Your task to perform on an android device: Open calendar and show me the fourth week of next month Image 0: 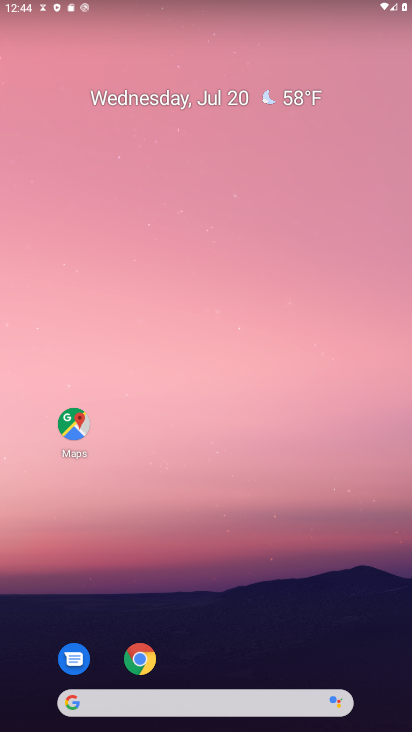
Step 0: press home button
Your task to perform on an android device: Open calendar and show me the fourth week of next month Image 1: 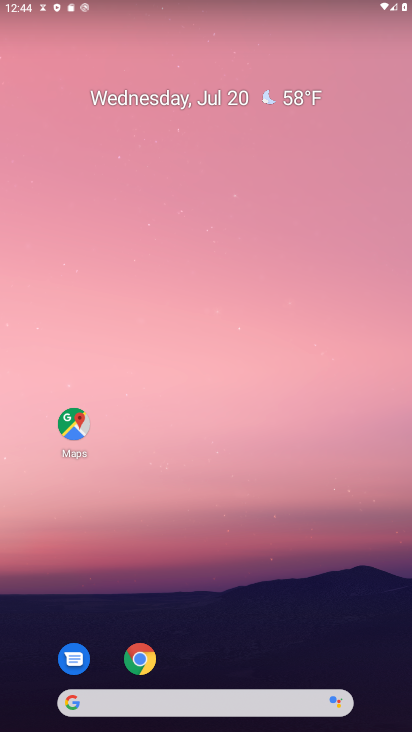
Step 1: drag from (209, 673) to (215, 129)
Your task to perform on an android device: Open calendar and show me the fourth week of next month Image 2: 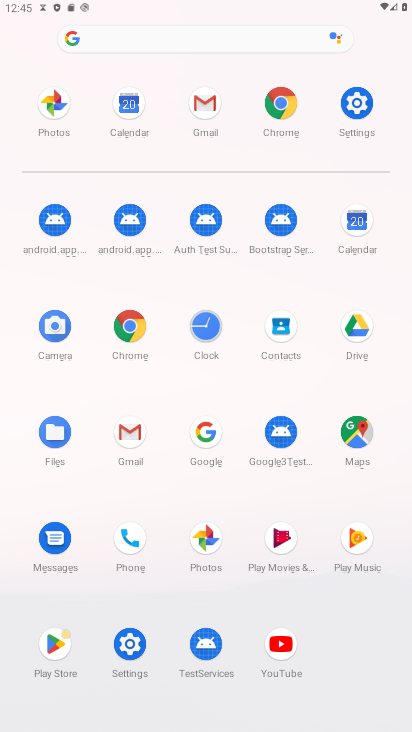
Step 2: click (356, 221)
Your task to perform on an android device: Open calendar and show me the fourth week of next month Image 3: 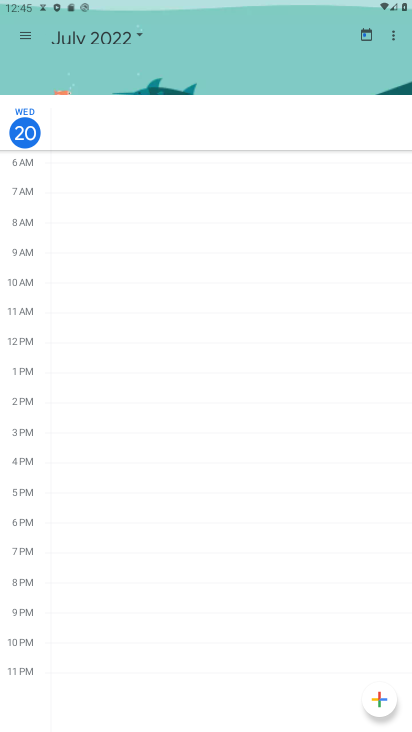
Step 3: click (27, 26)
Your task to perform on an android device: Open calendar and show me the fourth week of next month Image 4: 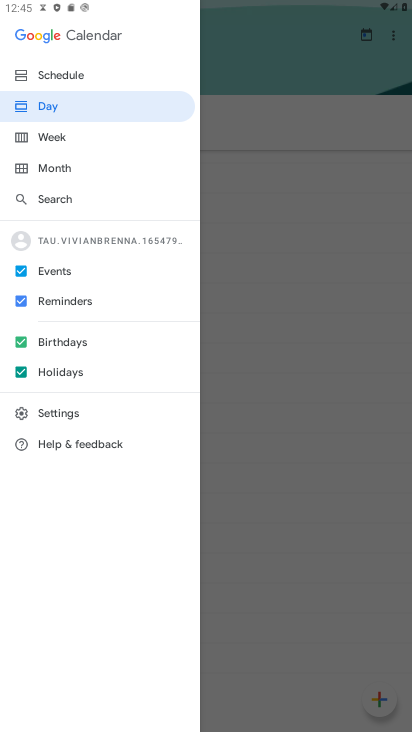
Step 4: click (57, 138)
Your task to perform on an android device: Open calendar and show me the fourth week of next month Image 5: 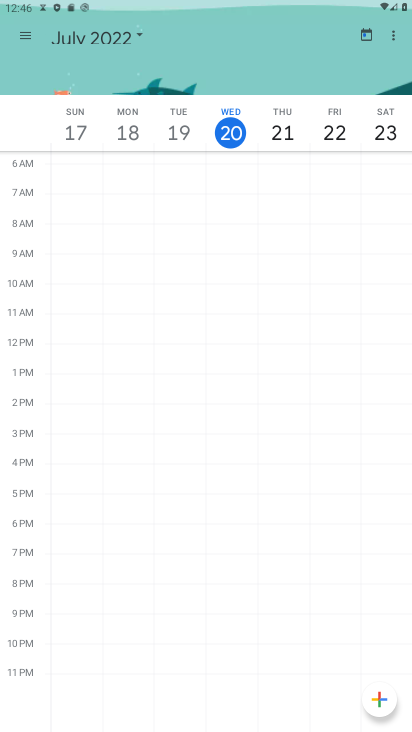
Step 5: drag from (393, 129) to (92, 127)
Your task to perform on an android device: Open calendar and show me the fourth week of next month Image 6: 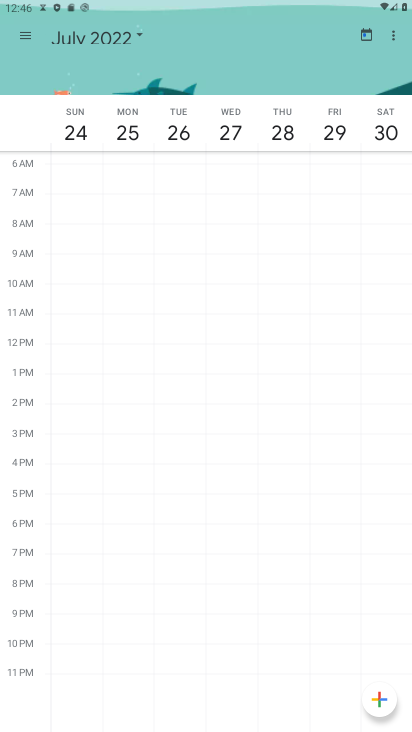
Step 6: drag from (394, 128) to (38, 128)
Your task to perform on an android device: Open calendar and show me the fourth week of next month Image 7: 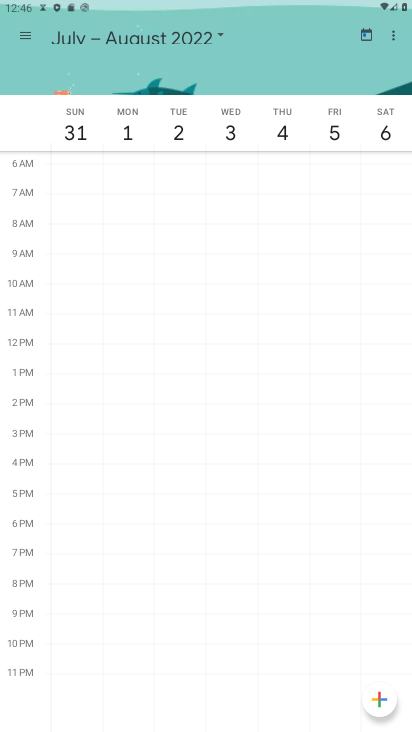
Step 7: drag from (381, 128) to (14, 137)
Your task to perform on an android device: Open calendar and show me the fourth week of next month Image 8: 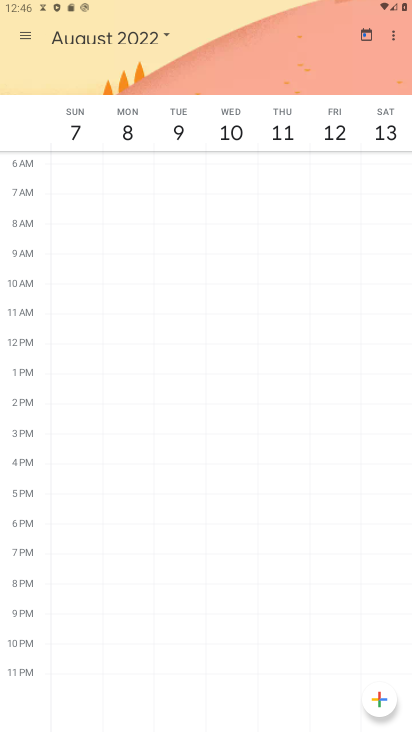
Step 8: drag from (385, 131) to (65, 150)
Your task to perform on an android device: Open calendar and show me the fourth week of next month Image 9: 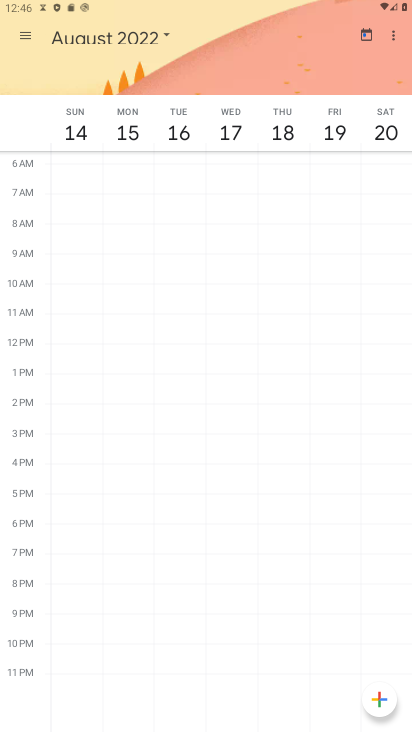
Step 9: drag from (382, 129) to (12, 128)
Your task to perform on an android device: Open calendar and show me the fourth week of next month Image 10: 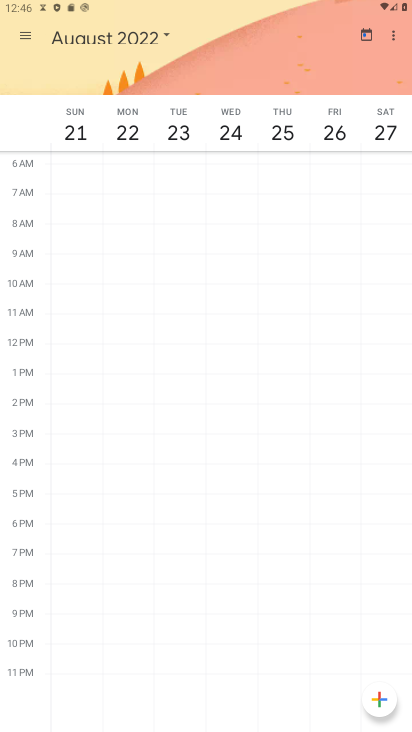
Step 10: click (75, 128)
Your task to perform on an android device: Open calendar and show me the fourth week of next month Image 11: 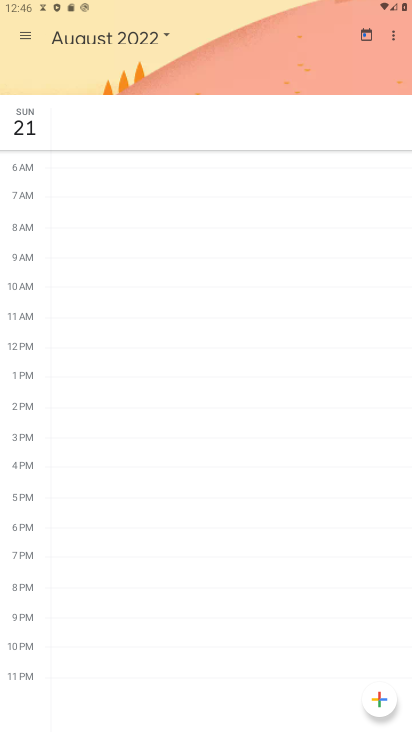
Step 11: click (40, 127)
Your task to perform on an android device: Open calendar and show me the fourth week of next month Image 12: 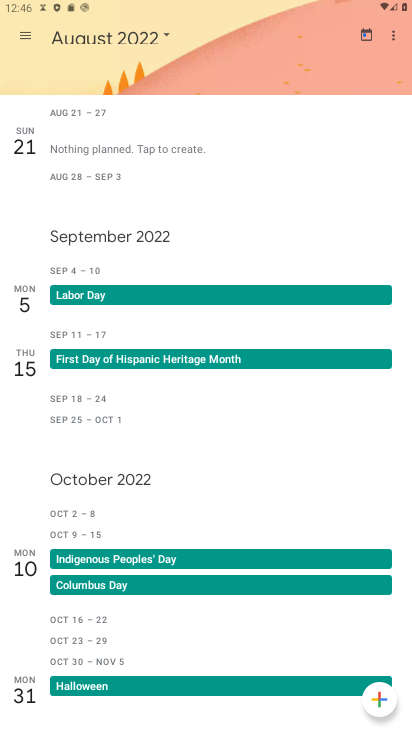
Step 12: task complete